Your task to perform on an android device: Go to internet settings Image 0: 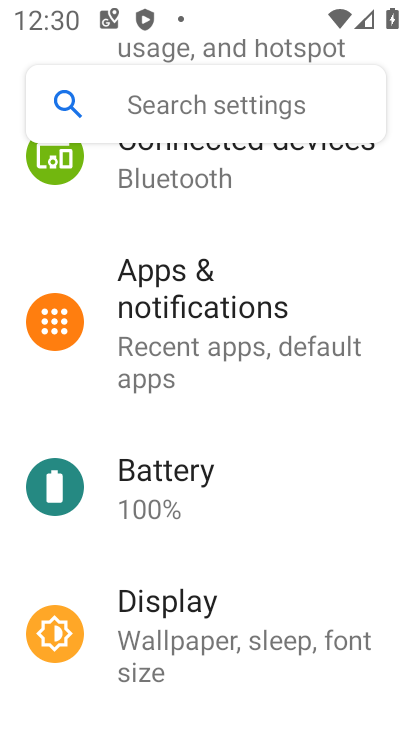
Step 0: drag from (222, 213) to (258, 582)
Your task to perform on an android device: Go to internet settings Image 1: 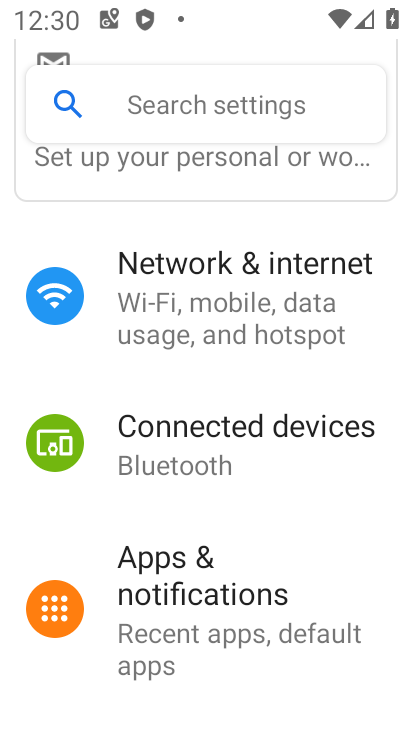
Step 1: click (210, 301)
Your task to perform on an android device: Go to internet settings Image 2: 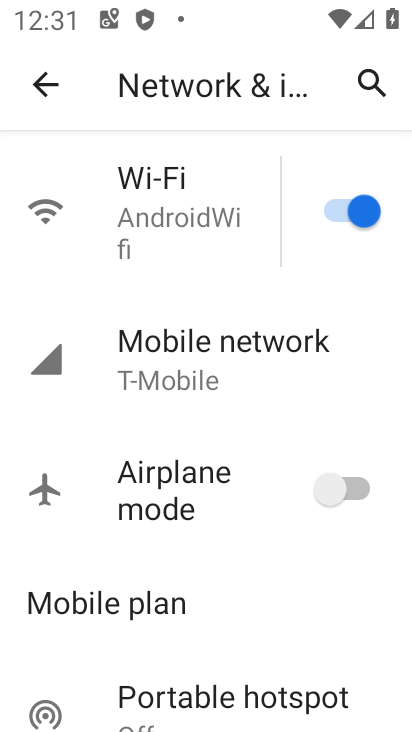
Step 2: task complete